Your task to perform on an android device: Show the shopping cart on ebay.com. Search for bose soundsport free on ebay.com, select the first entry, add it to the cart, then select checkout. Image 0: 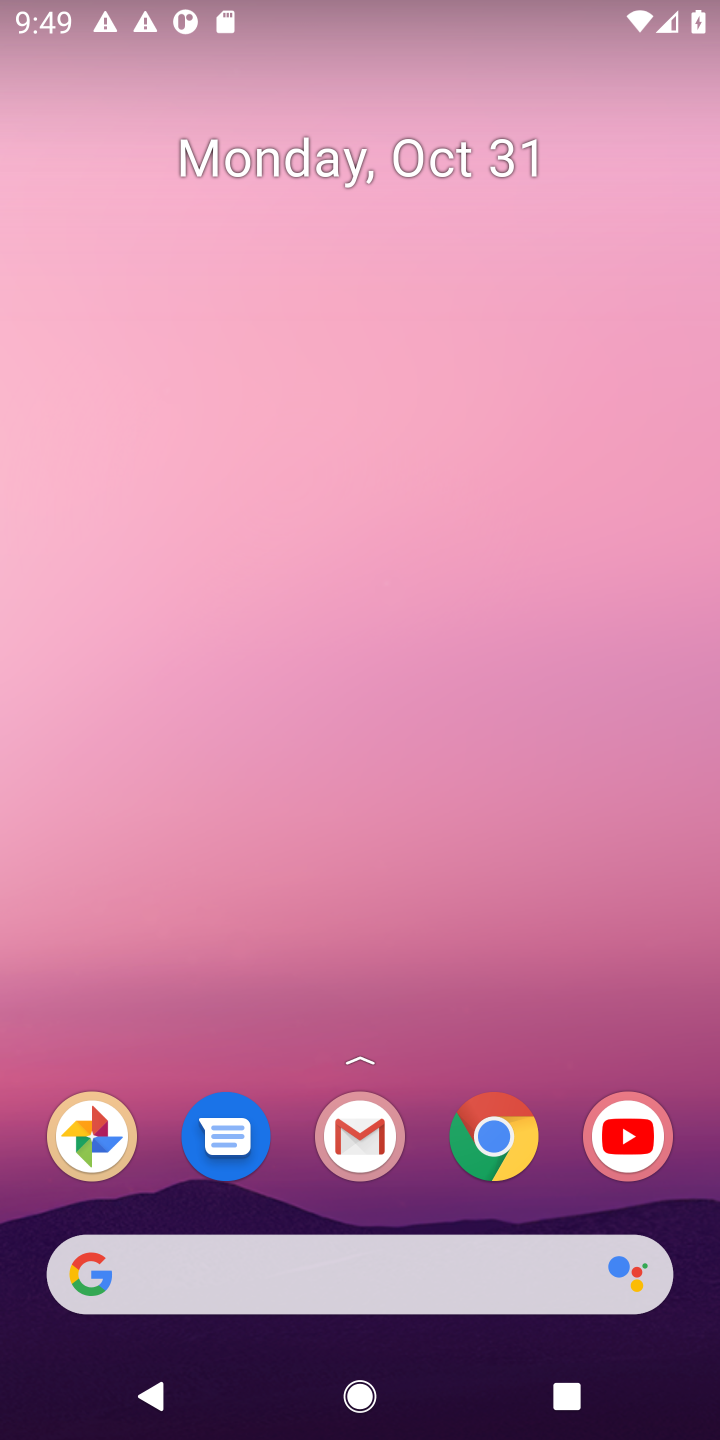
Step 0: press home button
Your task to perform on an android device: Show the shopping cart on ebay.com. Search for bose soundsport free on ebay.com, select the first entry, add it to the cart, then select checkout. Image 1: 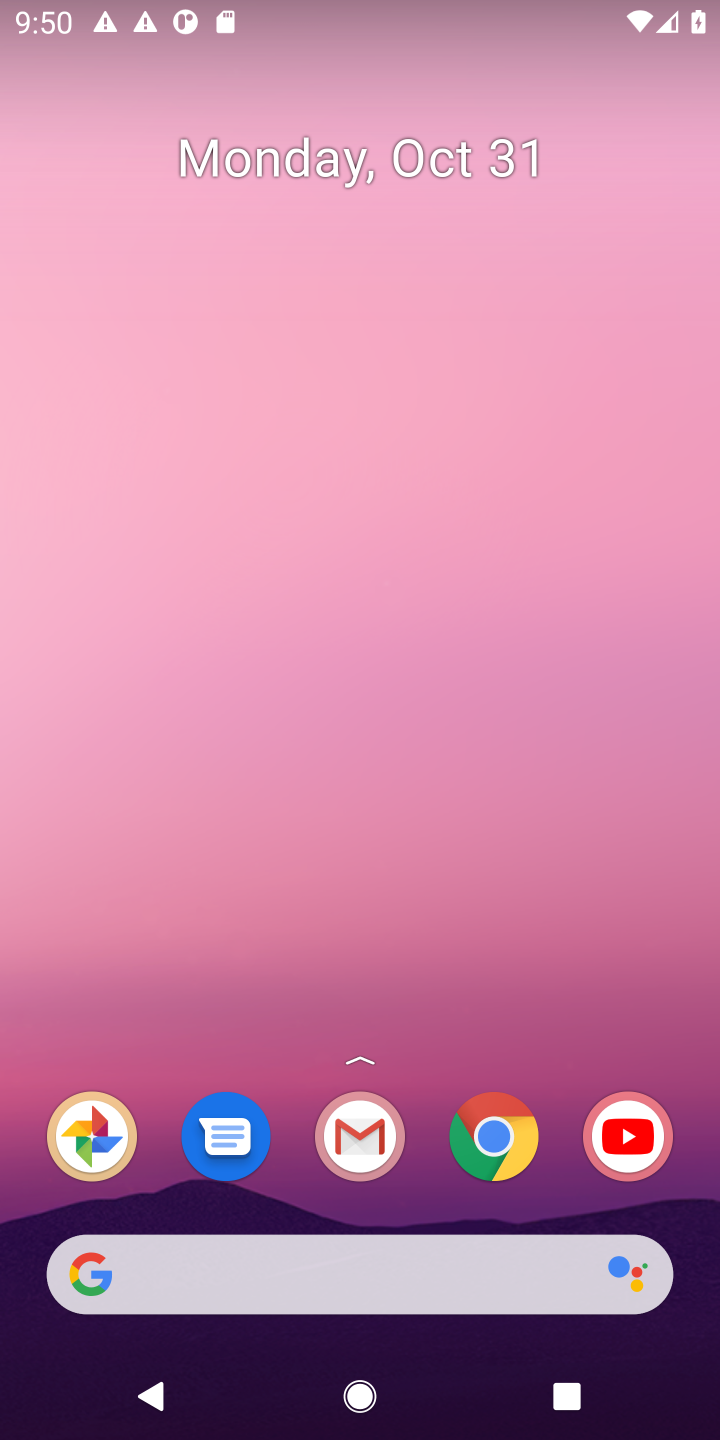
Step 1: click (124, 1268)
Your task to perform on an android device: Show the shopping cart on ebay.com. Search for bose soundsport free on ebay.com, select the first entry, add it to the cart, then select checkout. Image 2: 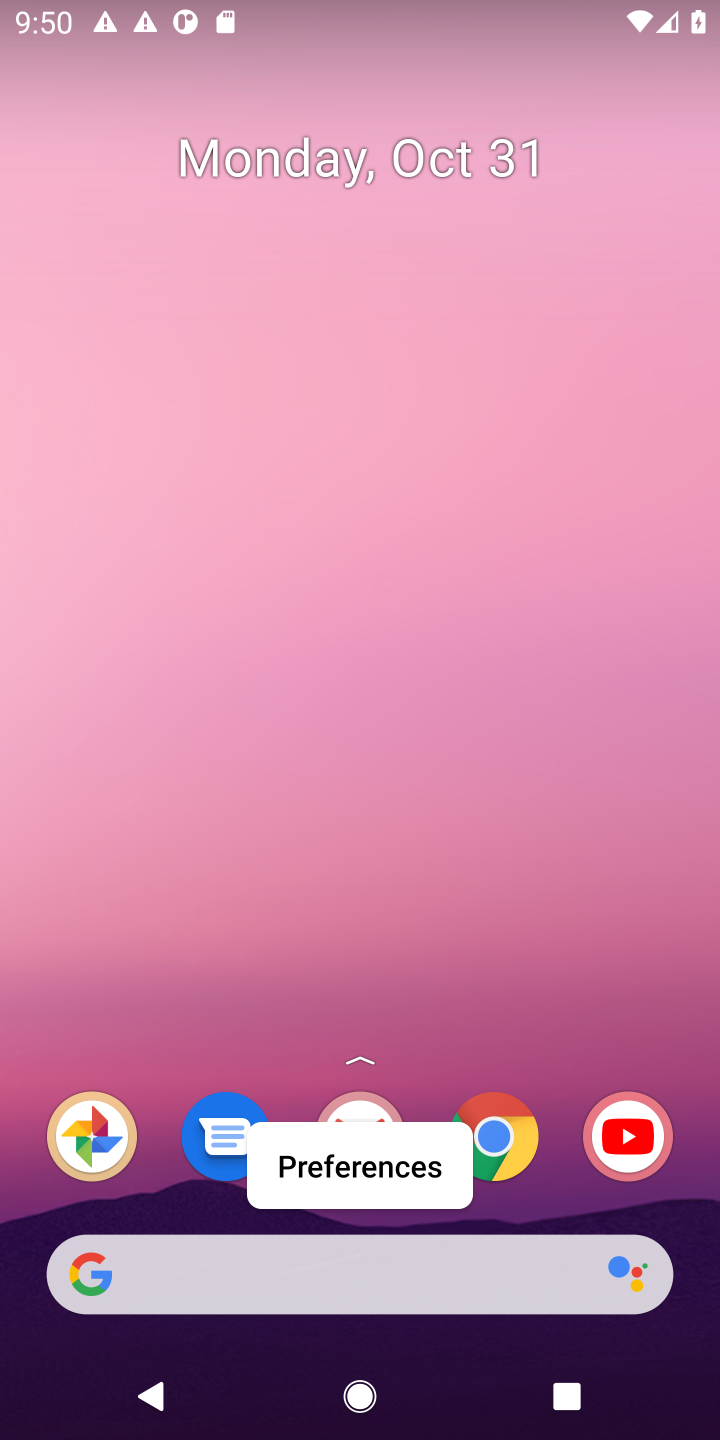
Step 2: click (136, 1270)
Your task to perform on an android device: Show the shopping cart on ebay.com. Search for bose soundsport free on ebay.com, select the first entry, add it to the cart, then select checkout. Image 3: 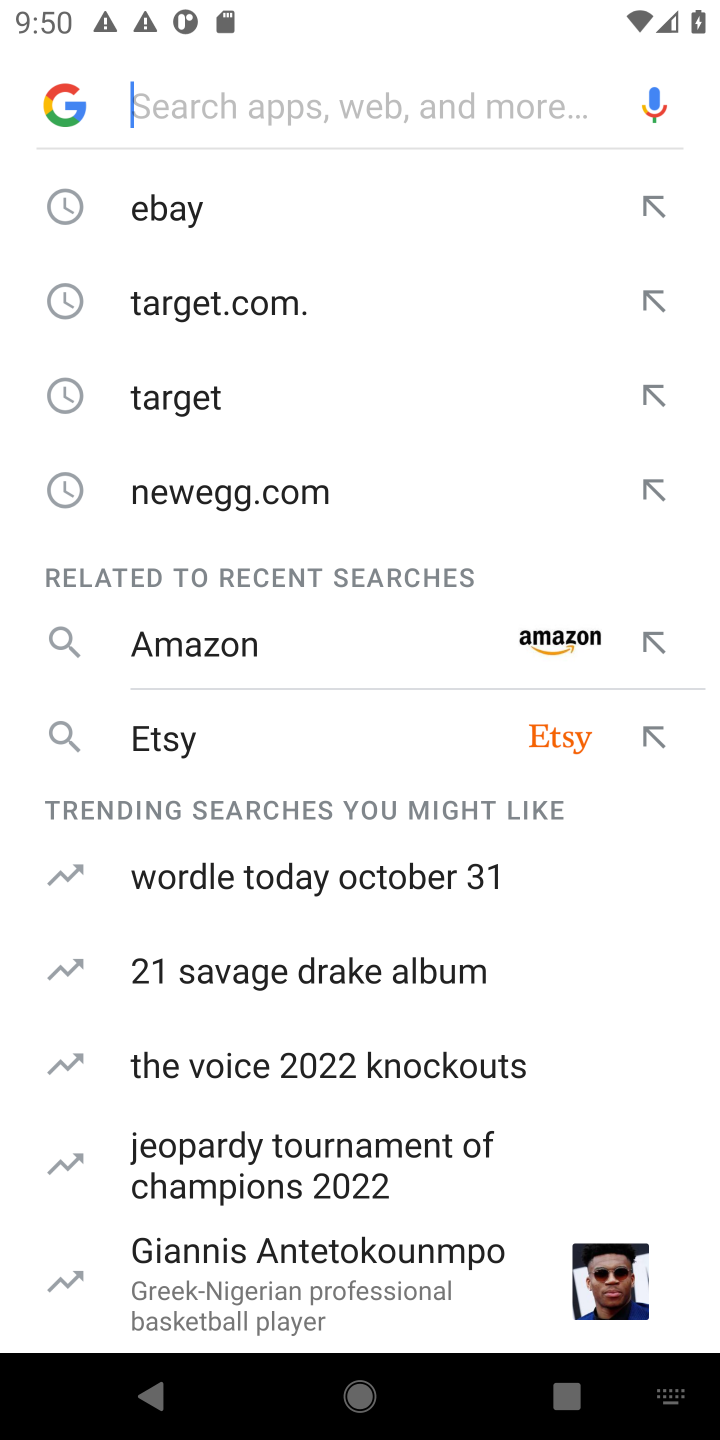
Step 3: type "ebay.com"
Your task to perform on an android device: Show the shopping cart on ebay.com. Search for bose soundsport free on ebay.com, select the first entry, add it to the cart, then select checkout. Image 4: 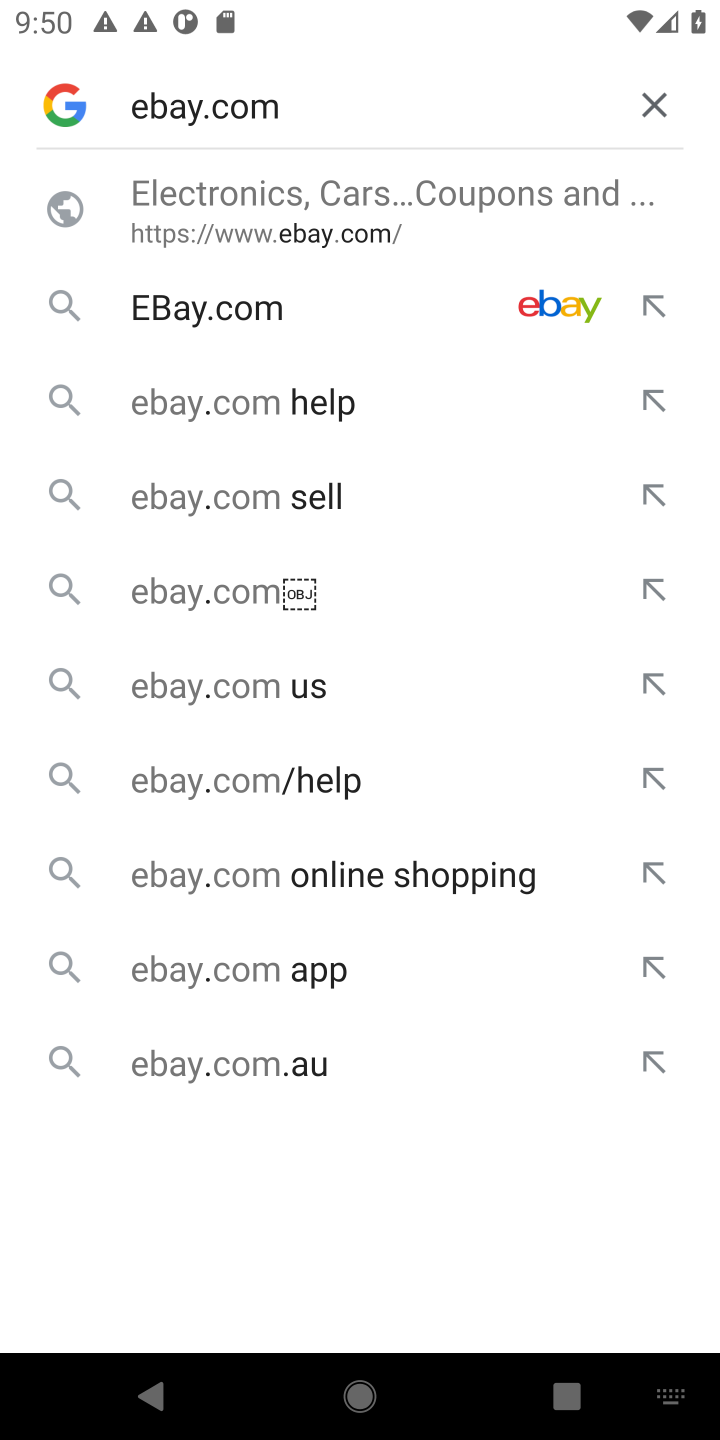
Step 4: press enter
Your task to perform on an android device: Show the shopping cart on ebay.com. Search for bose soundsport free on ebay.com, select the first entry, add it to the cart, then select checkout. Image 5: 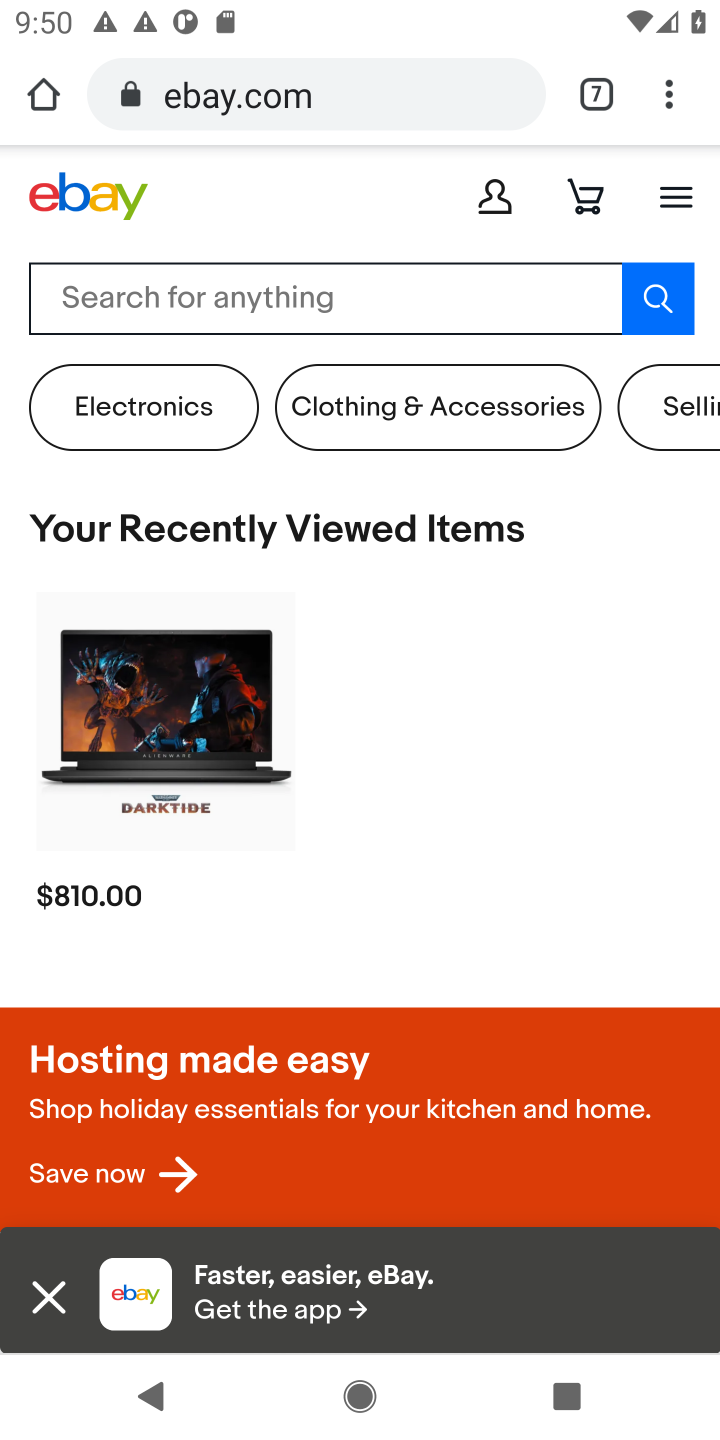
Step 5: click (587, 200)
Your task to perform on an android device: Show the shopping cart on ebay.com. Search for bose soundsport free on ebay.com, select the first entry, add it to the cart, then select checkout. Image 6: 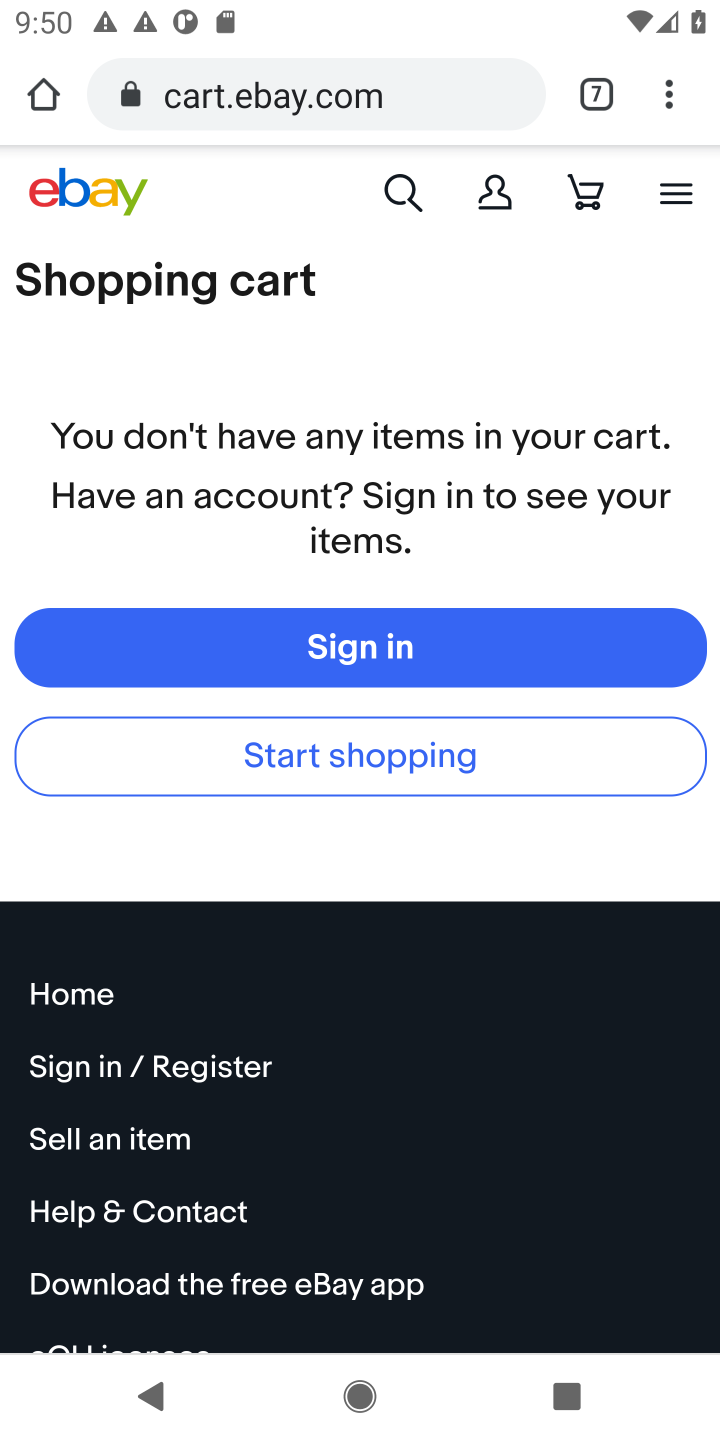
Step 6: click (403, 188)
Your task to perform on an android device: Show the shopping cart on ebay.com. Search for bose soundsport free on ebay.com, select the first entry, add it to the cart, then select checkout. Image 7: 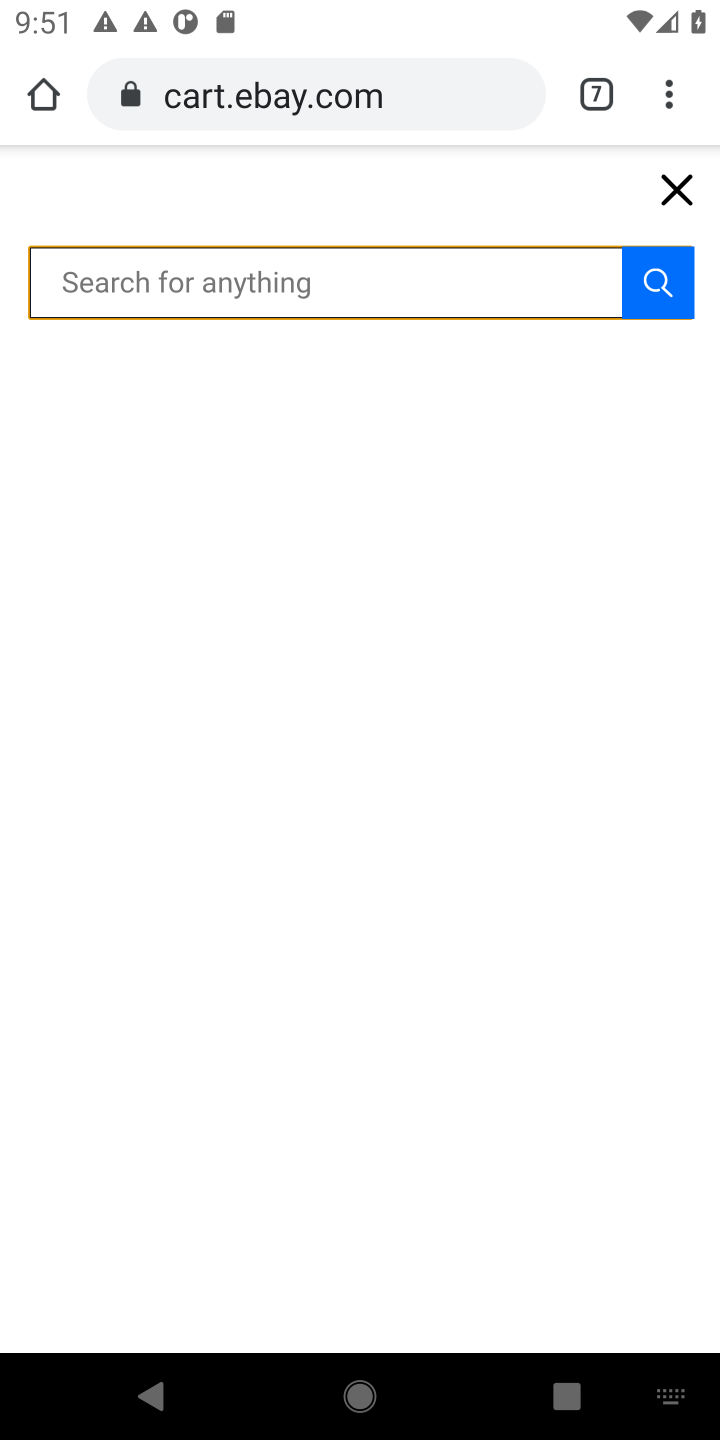
Step 7: press enter
Your task to perform on an android device: Show the shopping cart on ebay.com. Search for bose soundsport free on ebay.com, select the first entry, add it to the cart, then select checkout. Image 8: 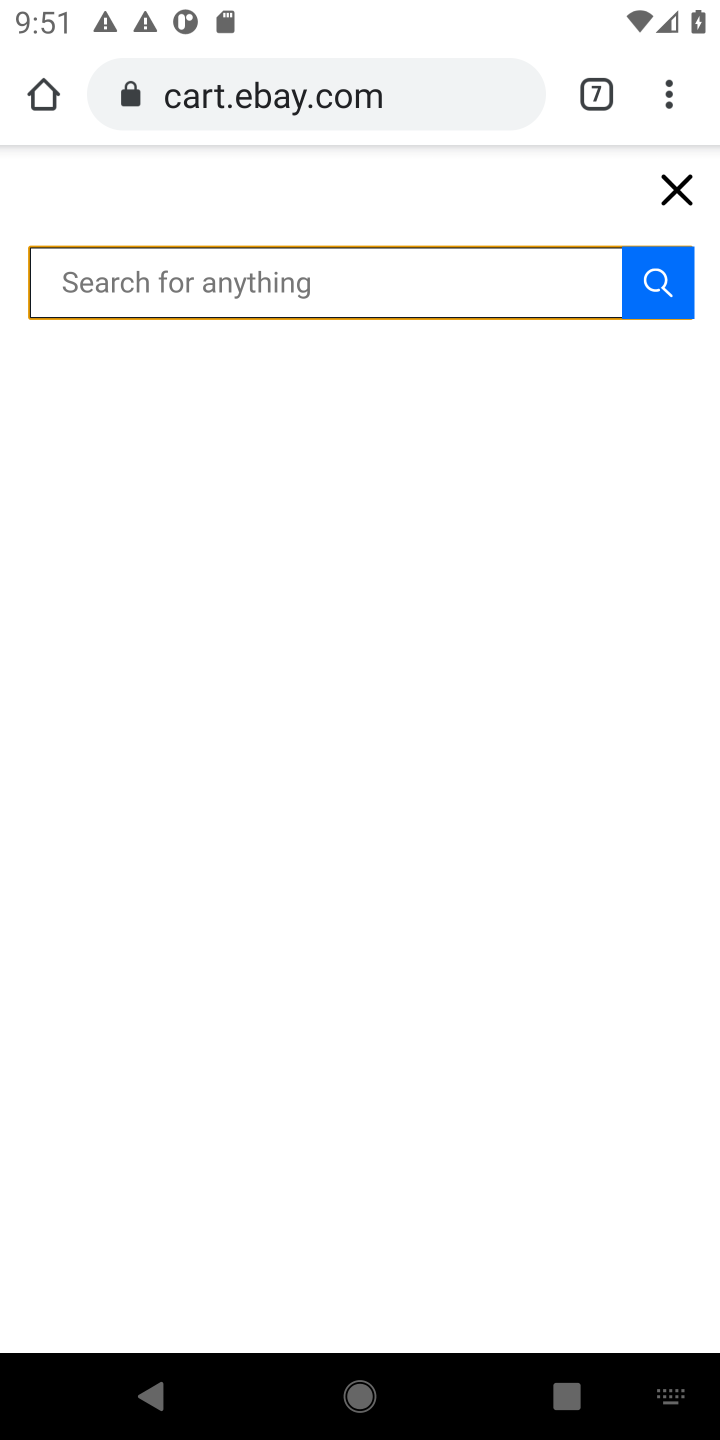
Step 8: type "bose soundsport free"
Your task to perform on an android device: Show the shopping cart on ebay.com. Search for bose soundsport free on ebay.com, select the first entry, add it to the cart, then select checkout. Image 9: 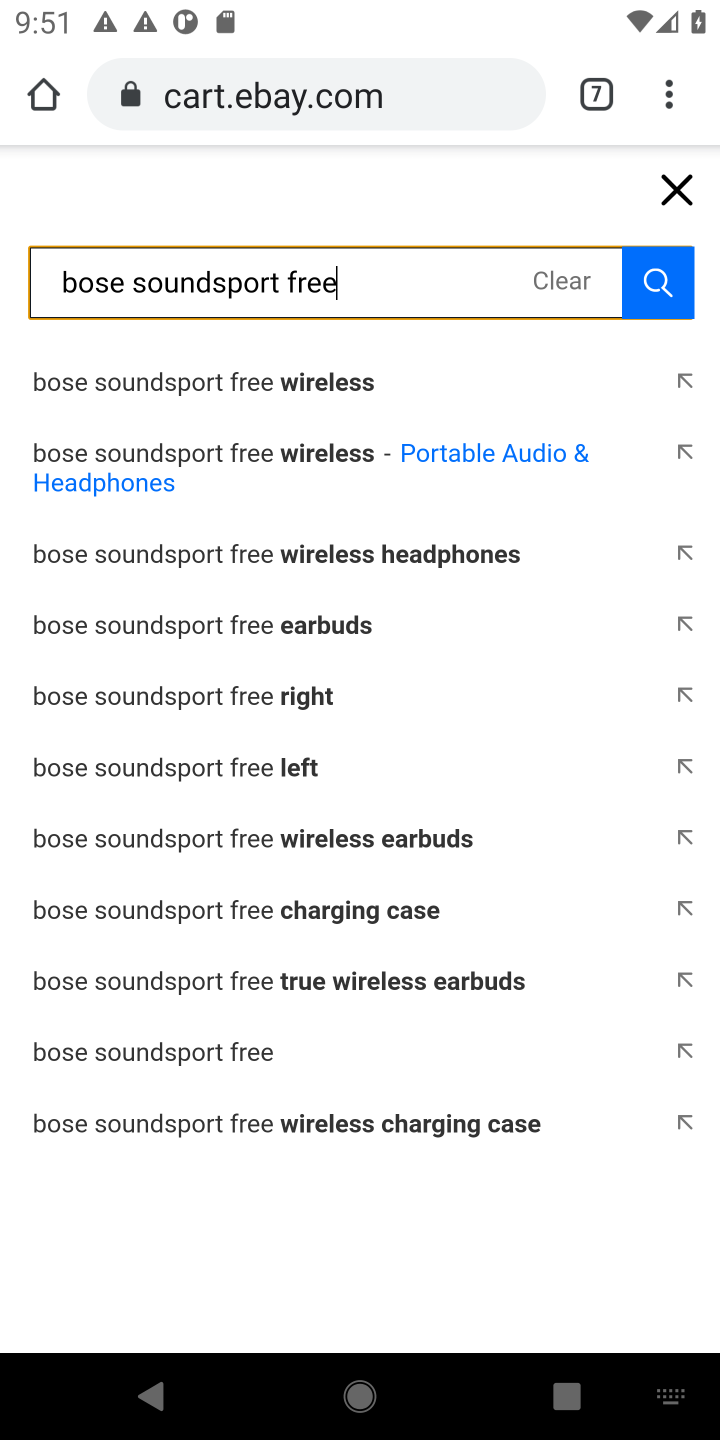
Step 9: click (667, 289)
Your task to perform on an android device: Show the shopping cart on ebay.com. Search for bose soundsport free on ebay.com, select the first entry, add it to the cart, then select checkout. Image 10: 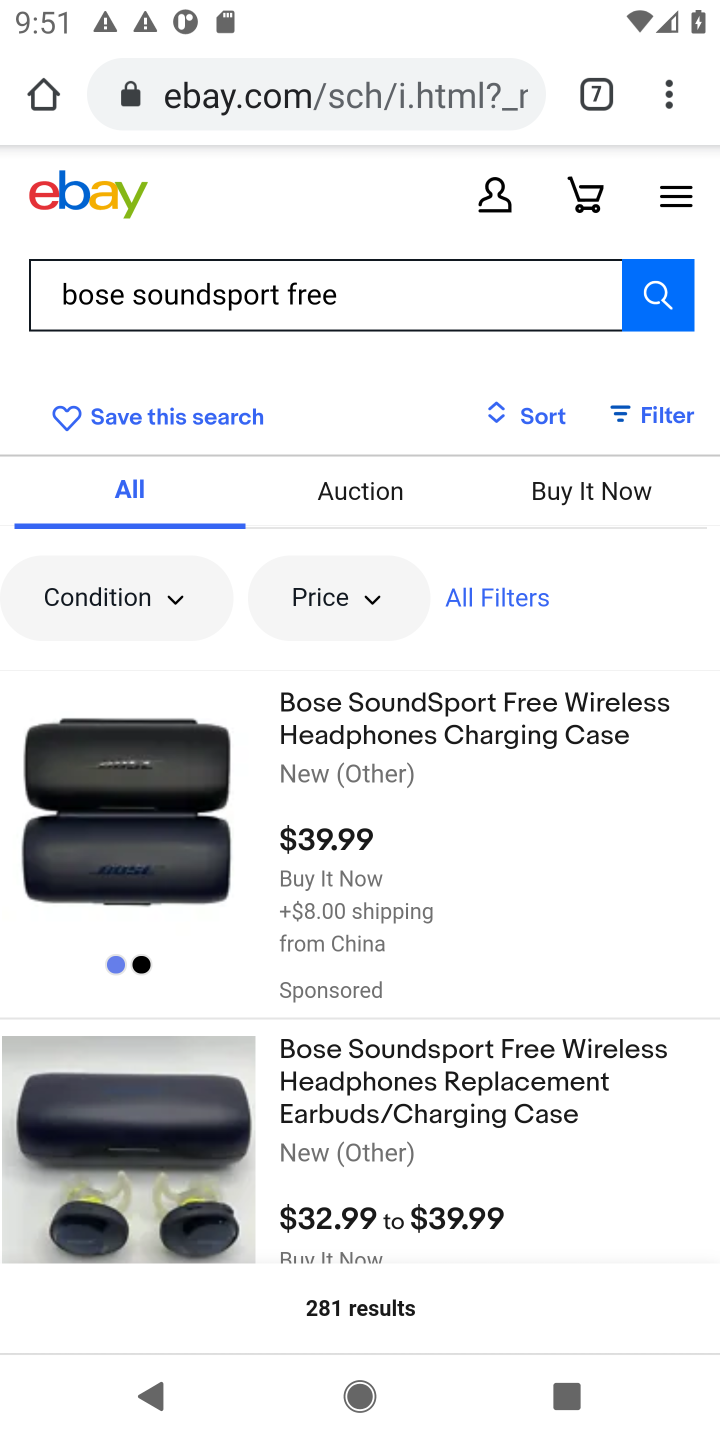
Step 10: click (384, 720)
Your task to perform on an android device: Show the shopping cart on ebay.com. Search for bose soundsport free on ebay.com, select the first entry, add it to the cart, then select checkout. Image 11: 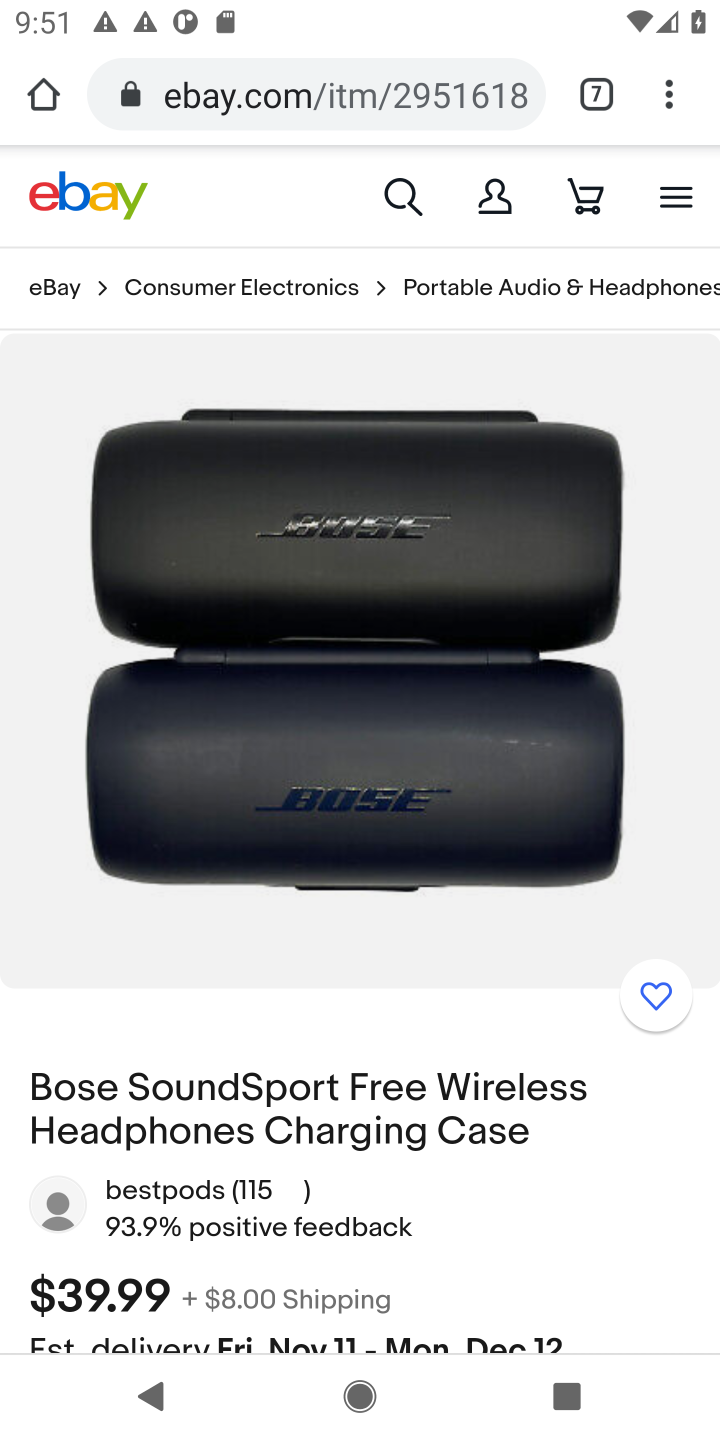
Step 11: drag from (366, 1189) to (390, 503)
Your task to perform on an android device: Show the shopping cart on ebay.com. Search for bose soundsport free on ebay.com, select the first entry, add it to the cart, then select checkout. Image 12: 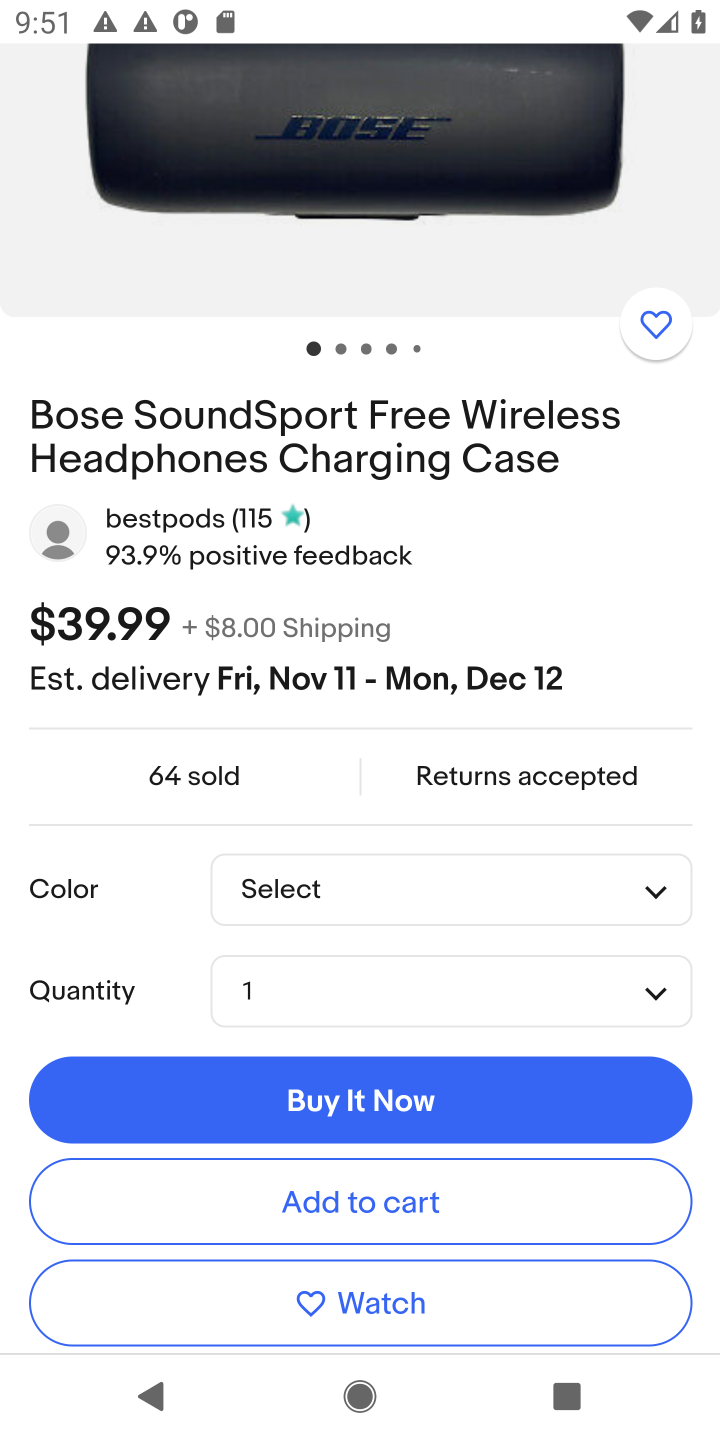
Step 12: drag from (405, 964) to (453, 342)
Your task to perform on an android device: Show the shopping cart on ebay.com. Search for bose soundsport free on ebay.com, select the first entry, add it to the cart, then select checkout. Image 13: 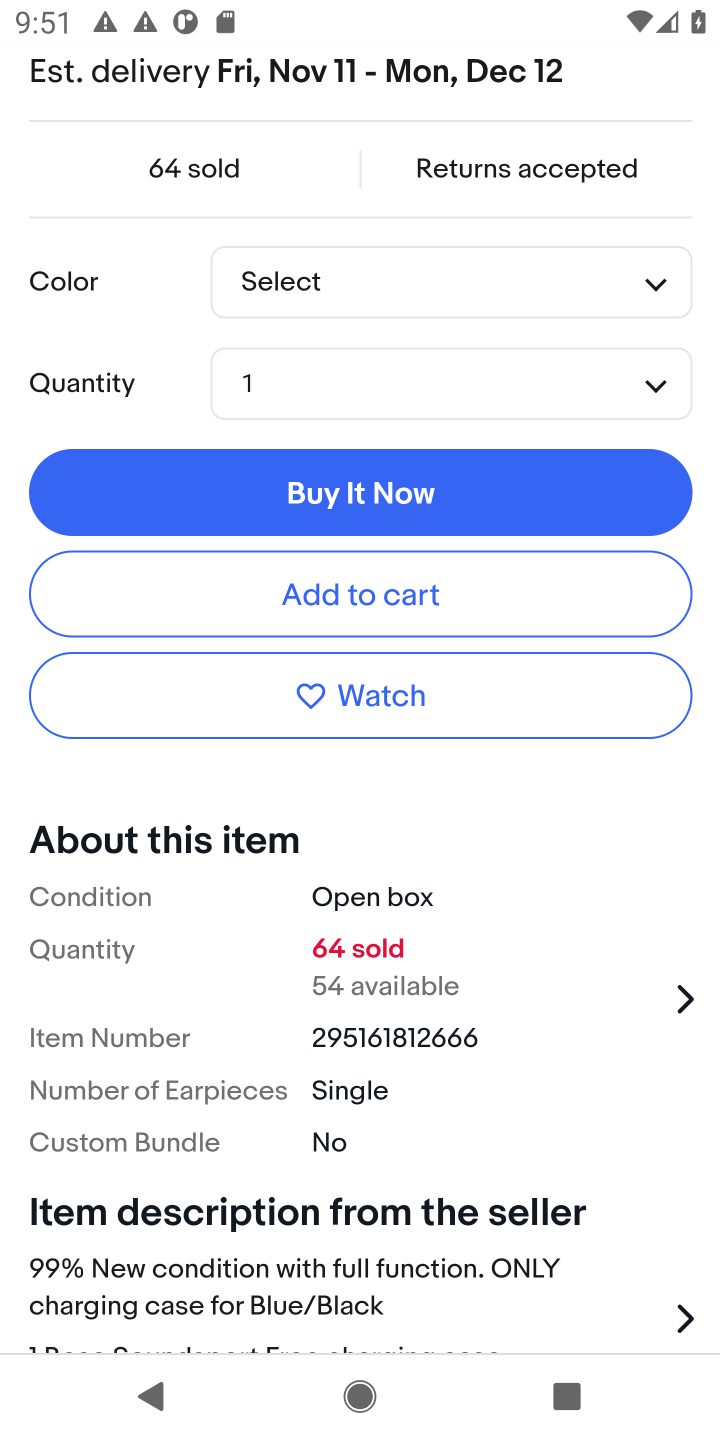
Step 13: click (371, 597)
Your task to perform on an android device: Show the shopping cart on ebay.com. Search for bose soundsport free on ebay.com, select the first entry, add it to the cart, then select checkout. Image 14: 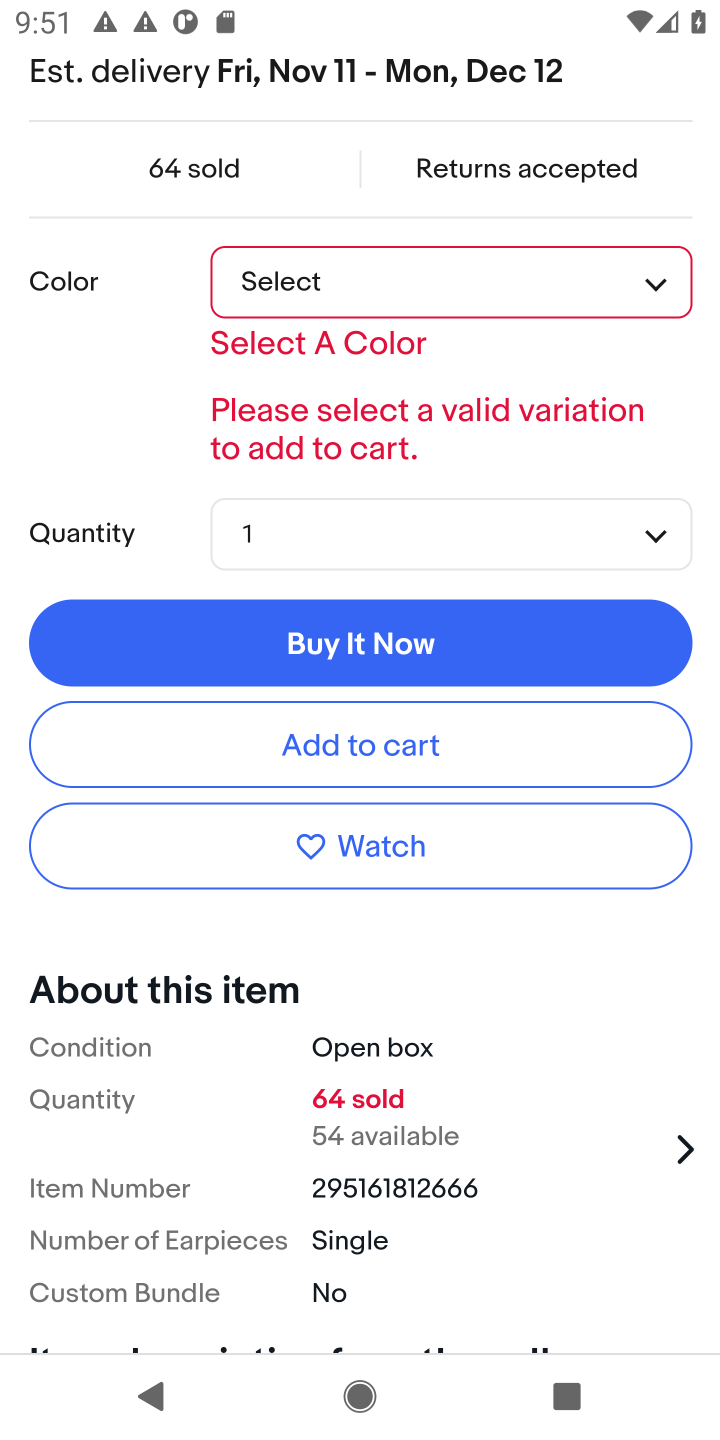
Step 14: click (336, 743)
Your task to perform on an android device: Show the shopping cart on ebay.com. Search for bose soundsport free on ebay.com, select the first entry, add it to the cart, then select checkout. Image 15: 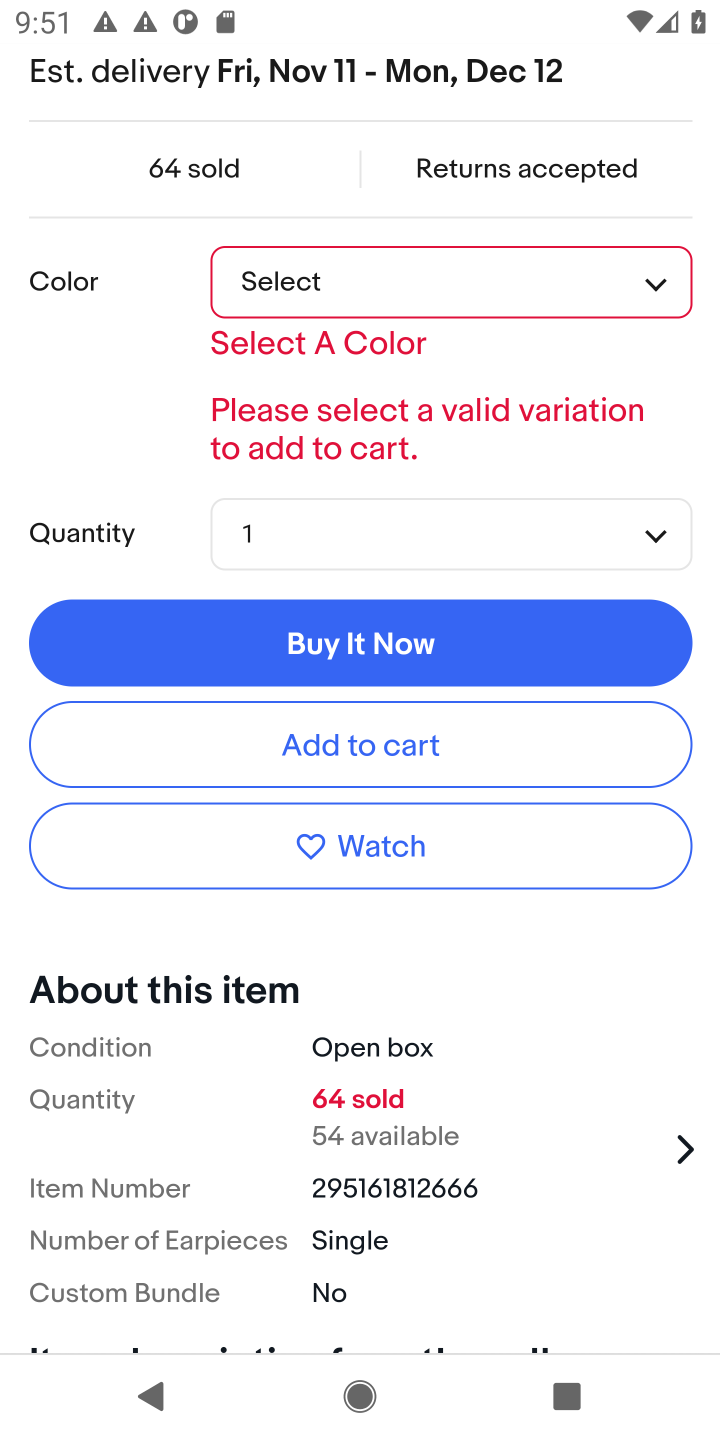
Step 15: drag from (114, 476) to (108, 205)
Your task to perform on an android device: Show the shopping cart on ebay.com. Search for bose soundsport free on ebay.com, select the first entry, add it to the cart, then select checkout. Image 16: 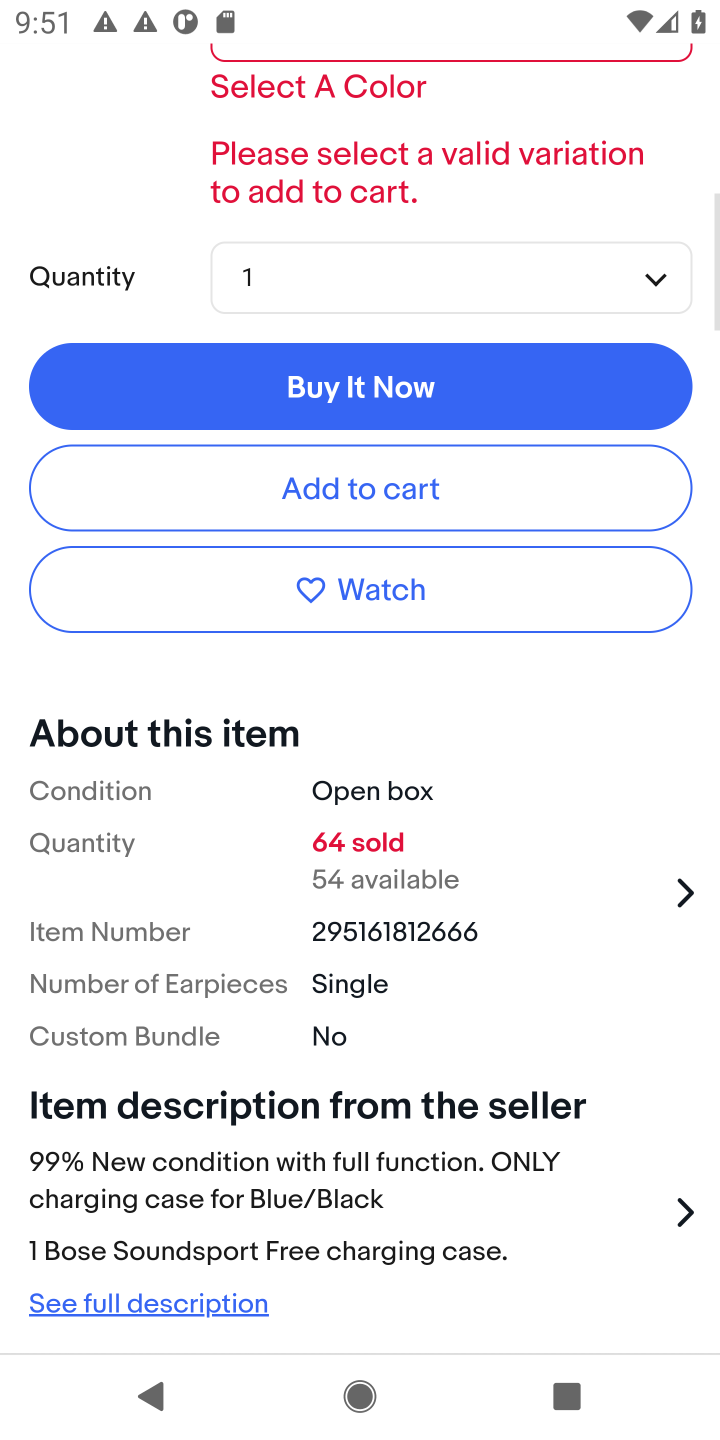
Step 16: drag from (111, 329) to (176, 1081)
Your task to perform on an android device: Show the shopping cart on ebay.com. Search for bose soundsport free on ebay.com, select the first entry, add it to the cart, then select checkout. Image 17: 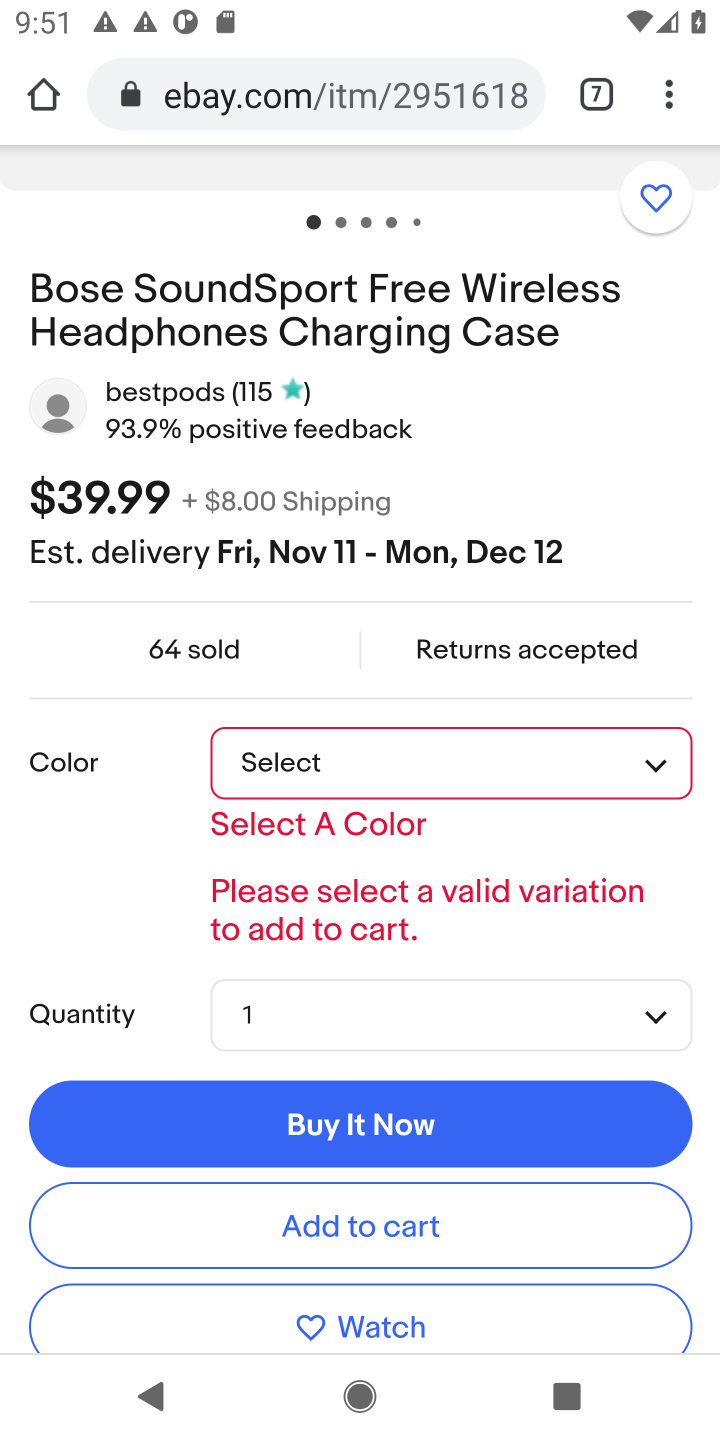
Step 17: click (657, 768)
Your task to perform on an android device: Show the shopping cart on ebay.com. Search for bose soundsport free on ebay.com, select the first entry, add it to the cart, then select checkout. Image 18: 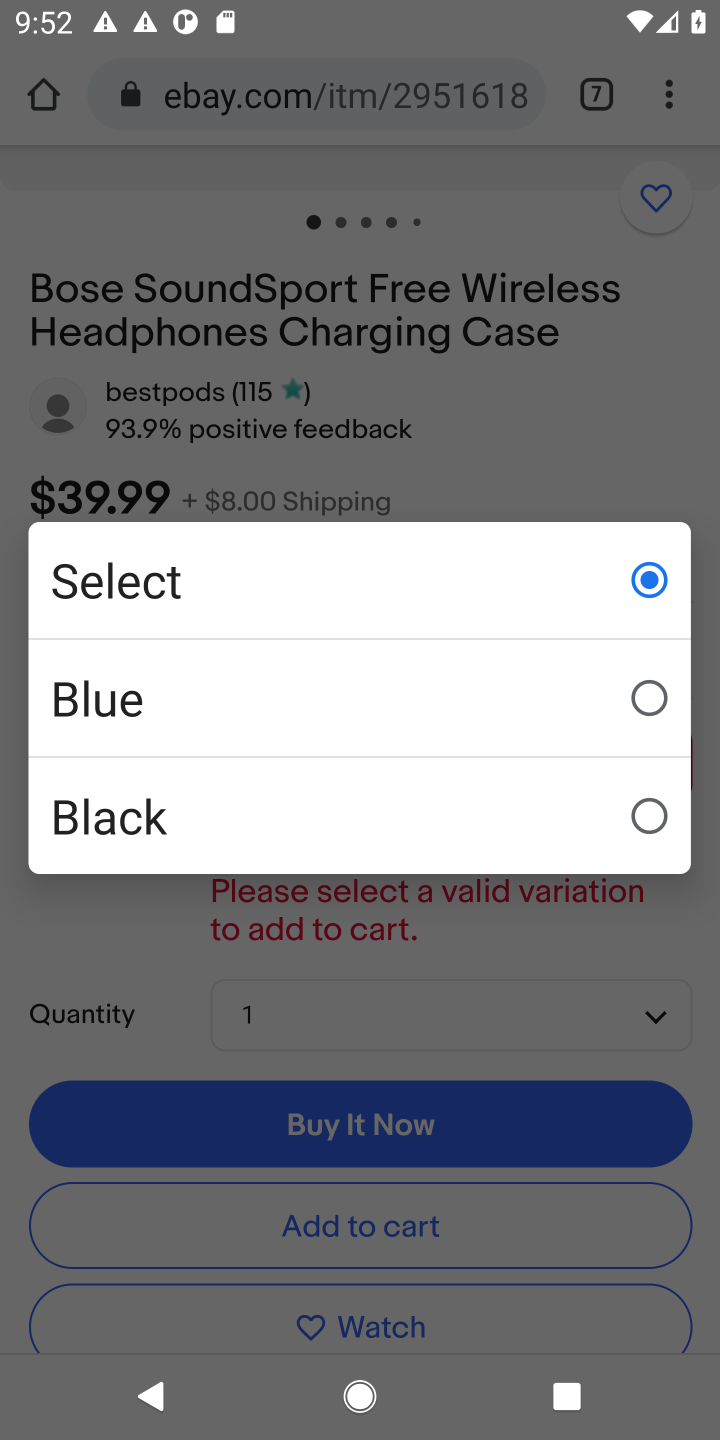
Step 18: click (646, 831)
Your task to perform on an android device: Show the shopping cart on ebay.com. Search for bose soundsport free on ebay.com, select the first entry, add it to the cart, then select checkout. Image 19: 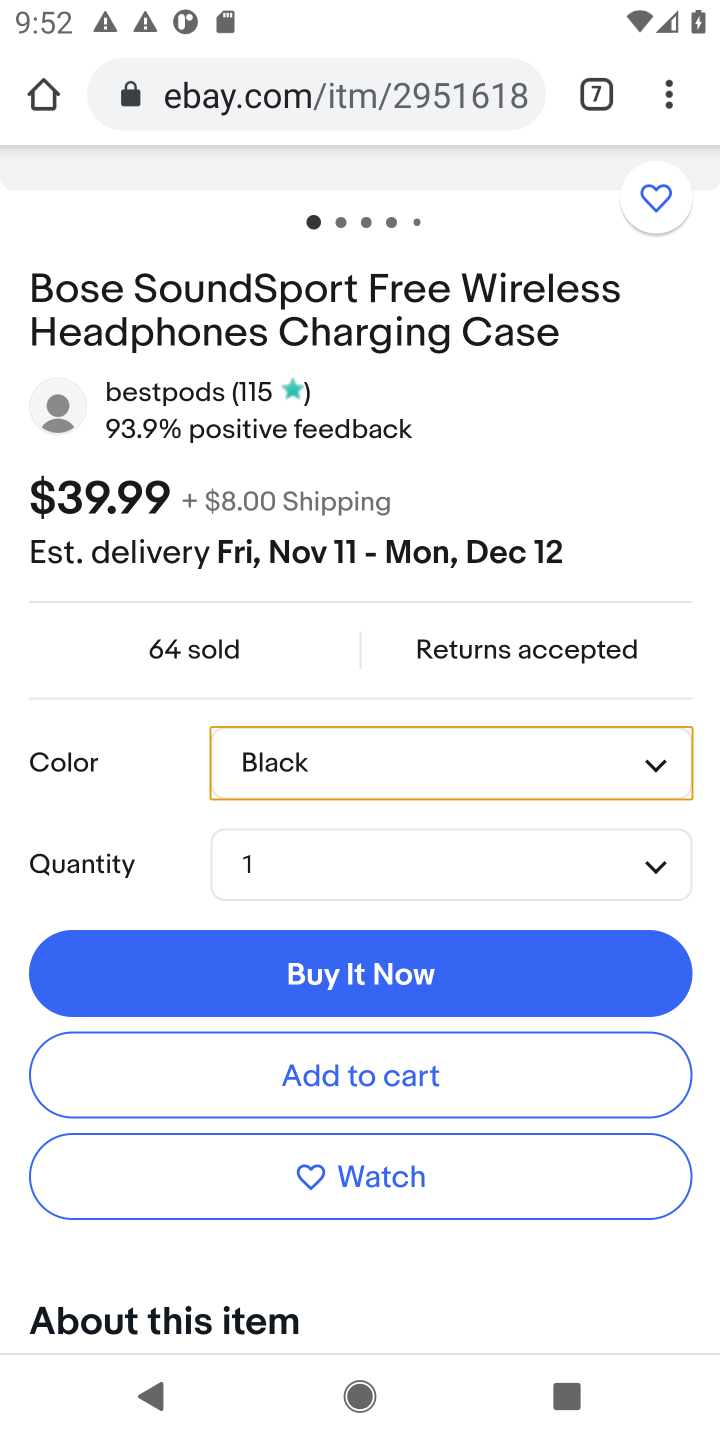
Step 19: click (388, 1083)
Your task to perform on an android device: Show the shopping cart on ebay.com. Search for bose soundsport free on ebay.com, select the first entry, add it to the cart, then select checkout. Image 20: 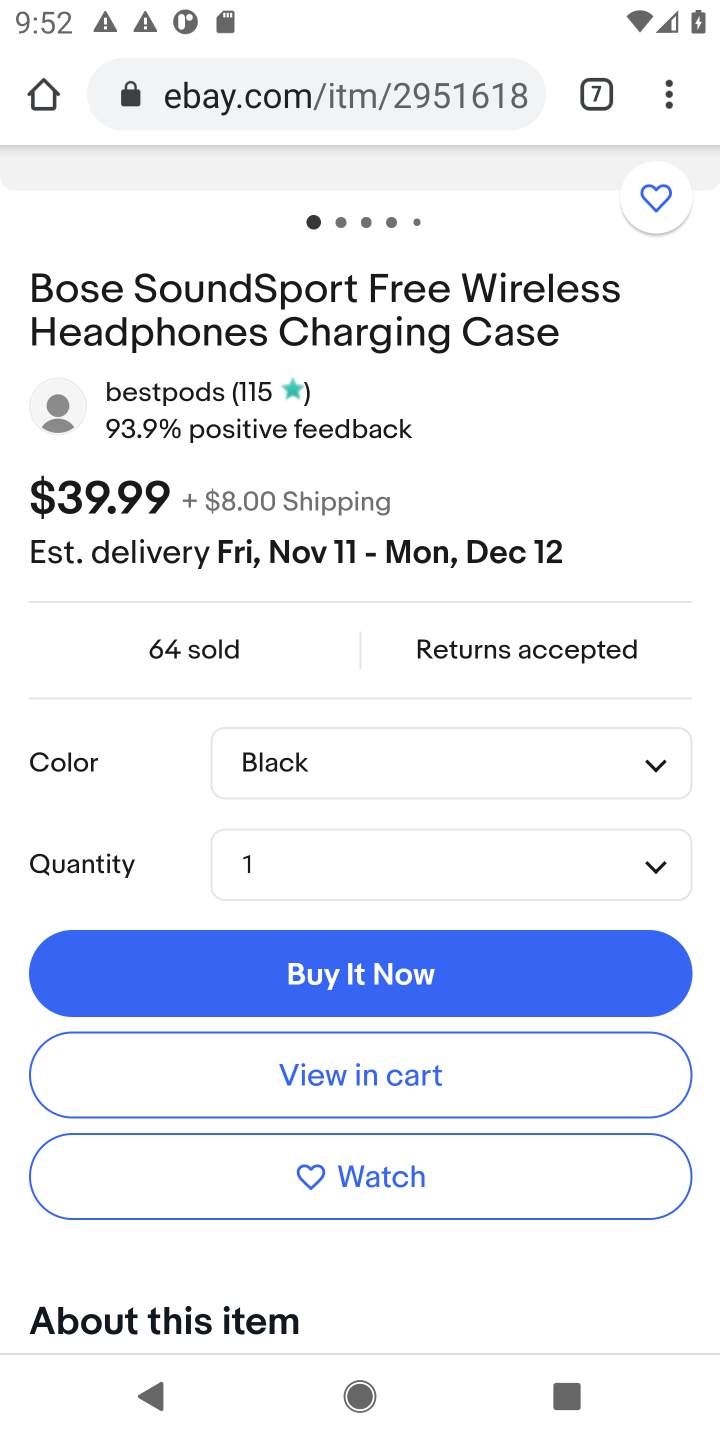
Step 20: click (384, 1062)
Your task to perform on an android device: Show the shopping cart on ebay.com. Search for bose soundsport free on ebay.com, select the first entry, add it to the cart, then select checkout. Image 21: 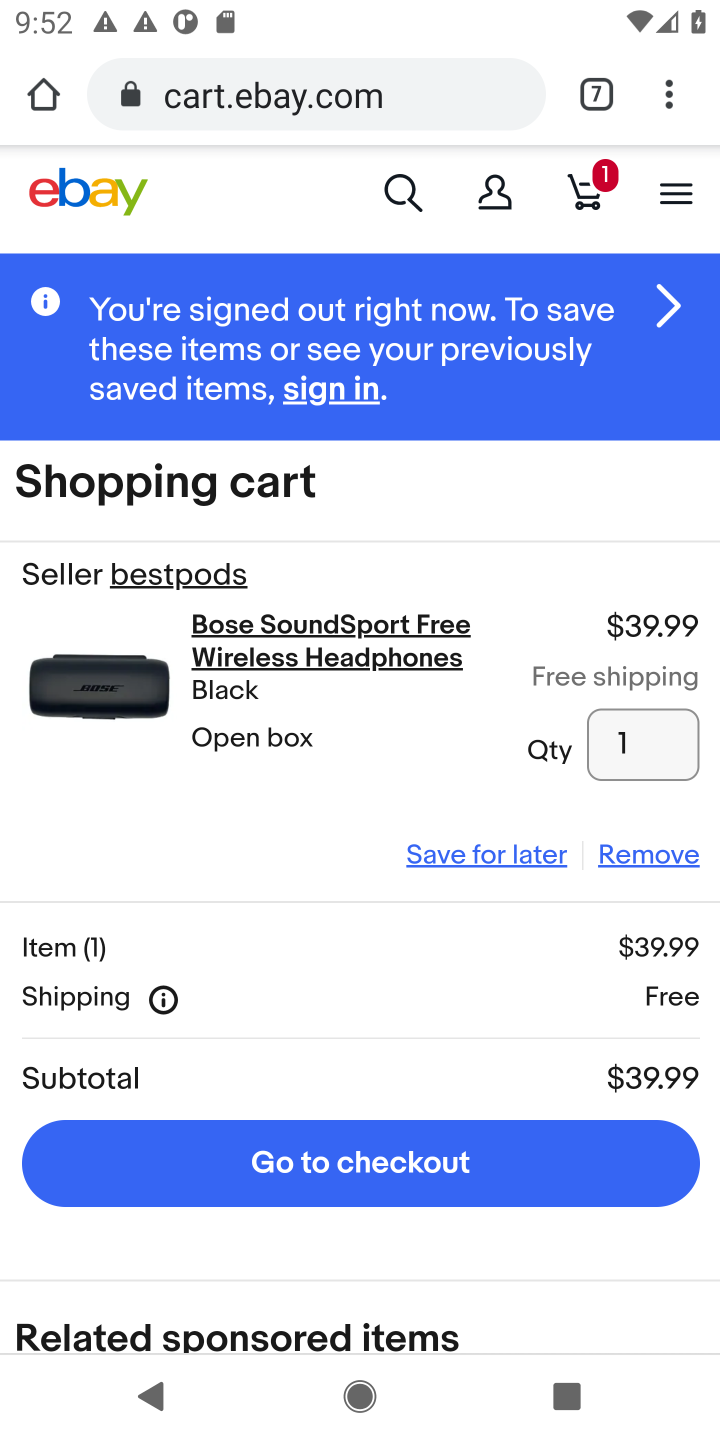
Step 21: click (336, 1164)
Your task to perform on an android device: Show the shopping cart on ebay.com. Search for bose soundsport free on ebay.com, select the first entry, add it to the cart, then select checkout. Image 22: 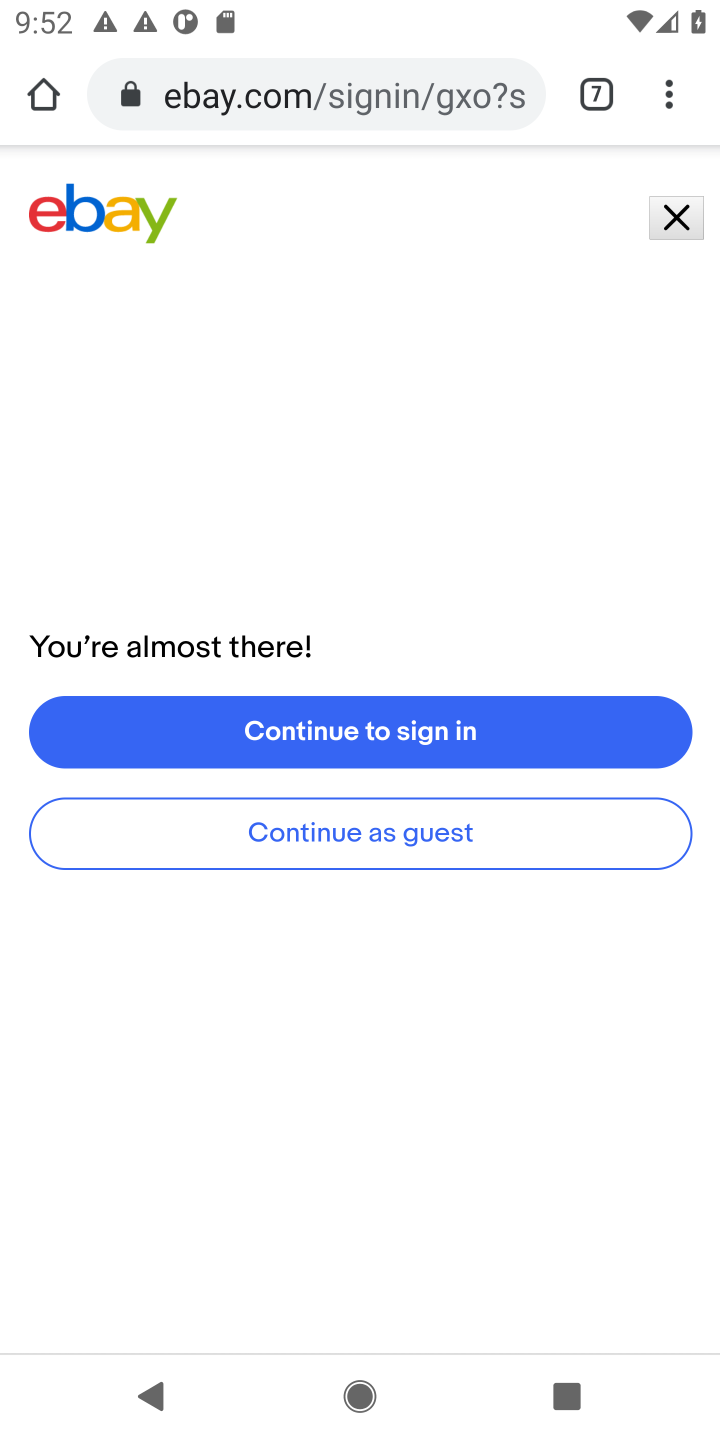
Step 22: task complete